Your task to perform on an android device: Do I have any events this weekend? Image 0: 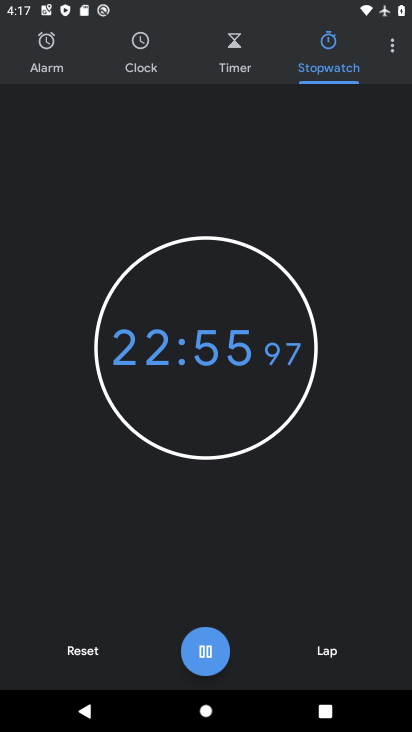
Step 0: press home button
Your task to perform on an android device: Do I have any events this weekend? Image 1: 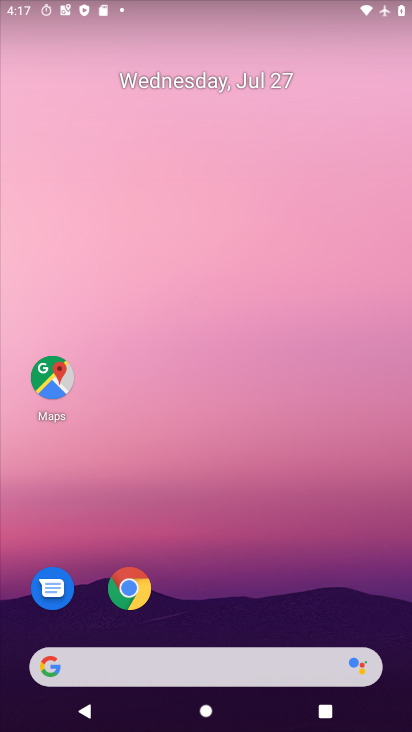
Step 1: drag from (251, 552) to (217, 134)
Your task to perform on an android device: Do I have any events this weekend? Image 2: 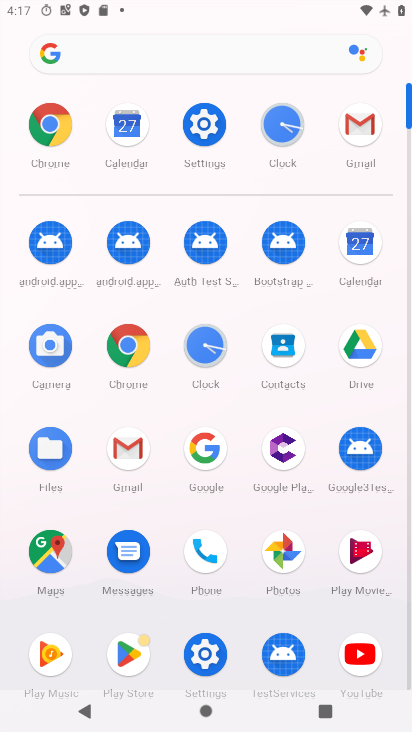
Step 2: click (354, 239)
Your task to perform on an android device: Do I have any events this weekend? Image 3: 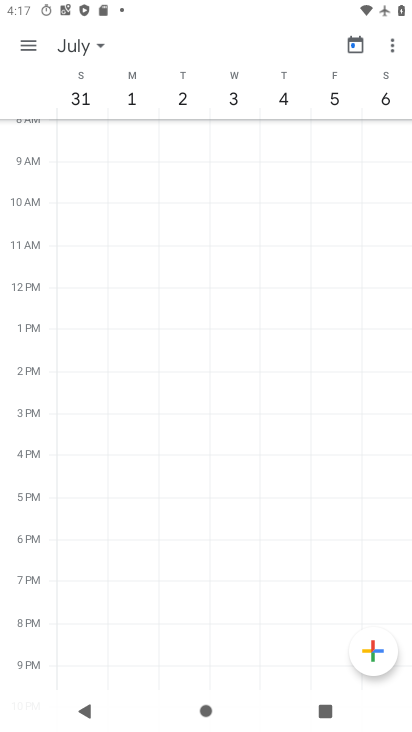
Step 3: drag from (108, 87) to (381, 211)
Your task to perform on an android device: Do I have any events this weekend? Image 4: 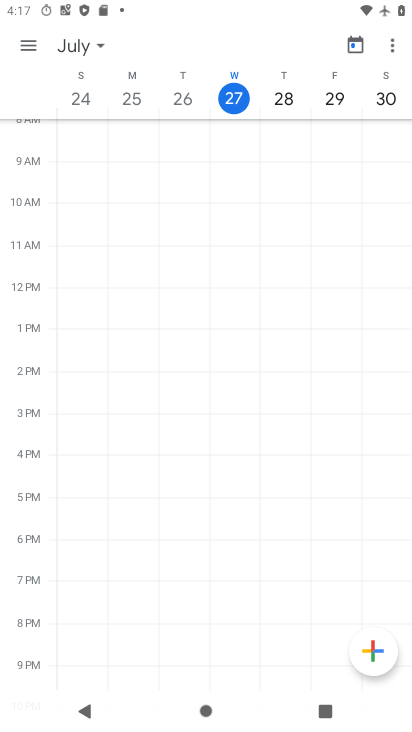
Step 4: click (37, 41)
Your task to perform on an android device: Do I have any events this weekend? Image 5: 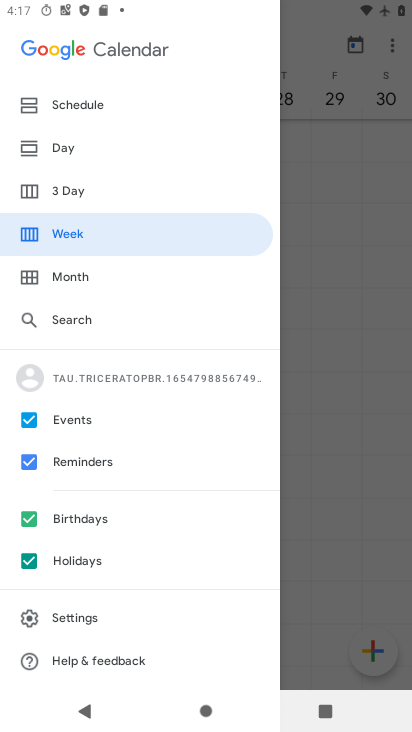
Step 5: click (112, 93)
Your task to perform on an android device: Do I have any events this weekend? Image 6: 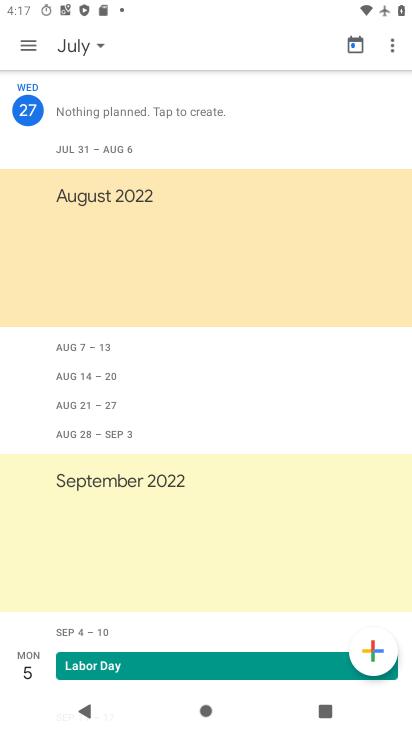
Step 6: task complete